Your task to perform on an android device: Show me popular videos on Youtube Image 0: 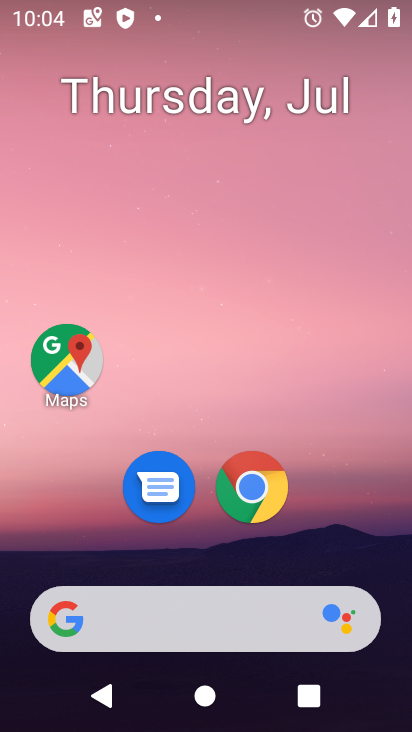
Step 0: press home button
Your task to perform on an android device: Show me popular videos on Youtube Image 1: 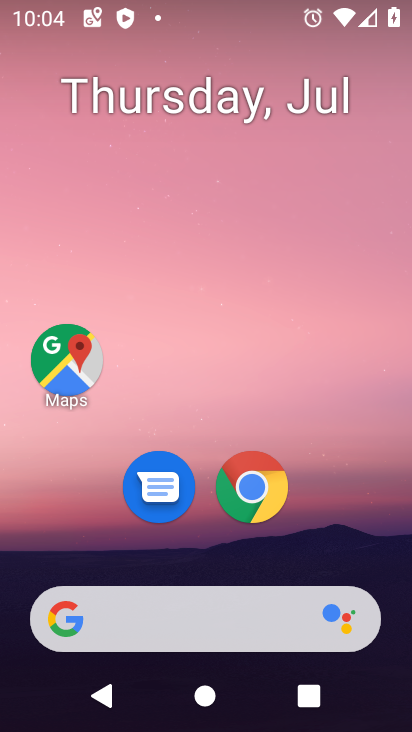
Step 1: drag from (240, 636) to (264, 232)
Your task to perform on an android device: Show me popular videos on Youtube Image 2: 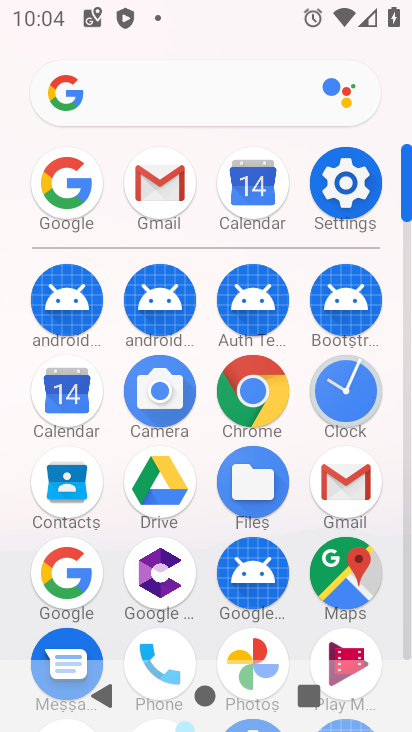
Step 2: drag from (276, 443) to (310, 145)
Your task to perform on an android device: Show me popular videos on Youtube Image 3: 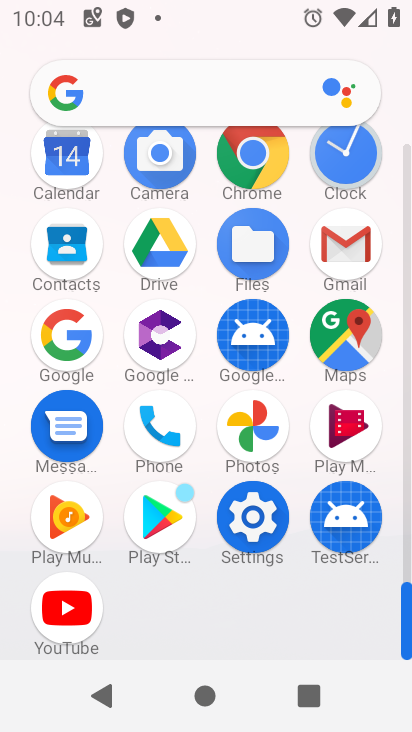
Step 3: click (72, 605)
Your task to perform on an android device: Show me popular videos on Youtube Image 4: 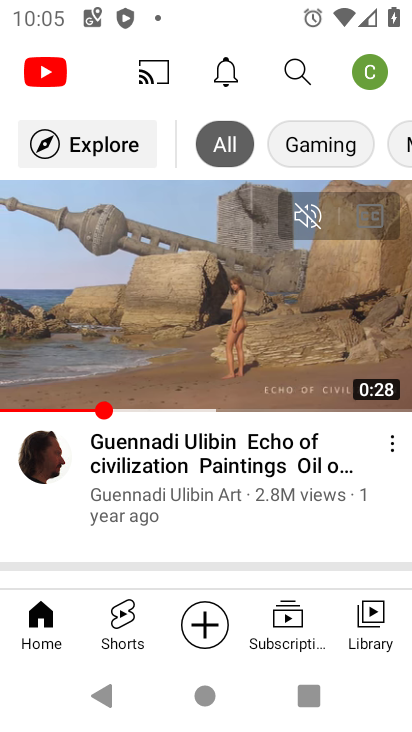
Step 4: task complete